Your task to perform on an android device: Open display settings Image 0: 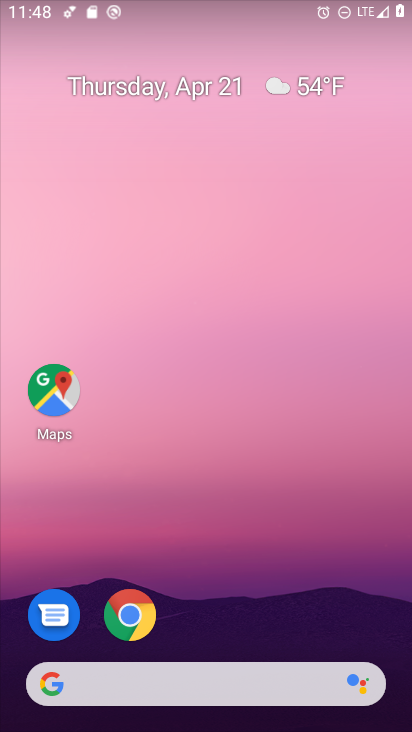
Step 0: drag from (229, 632) to (277, 53)
Your task to perform on an android device: Open display settings Image 1: 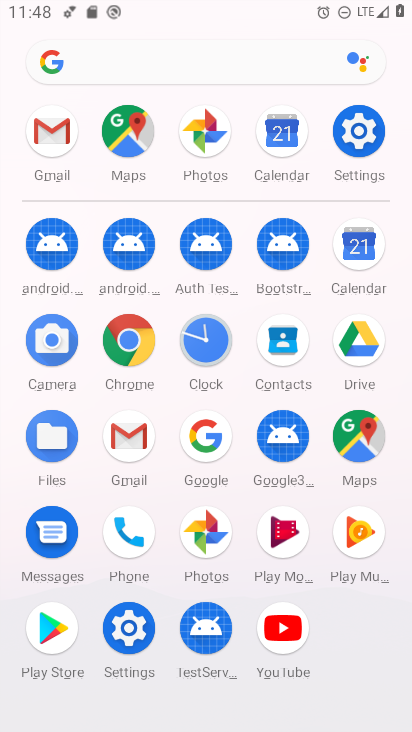
Step 1: click (354, 128)
Your task to perform on an android device: Open display settings Image 2: 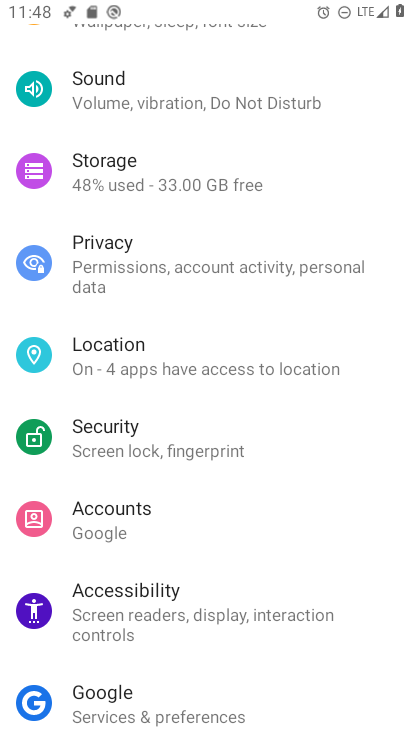
Step 2: drag from (141, 510) to (149, 572)
Your task to perform on an android device: Open display settings Image 3: 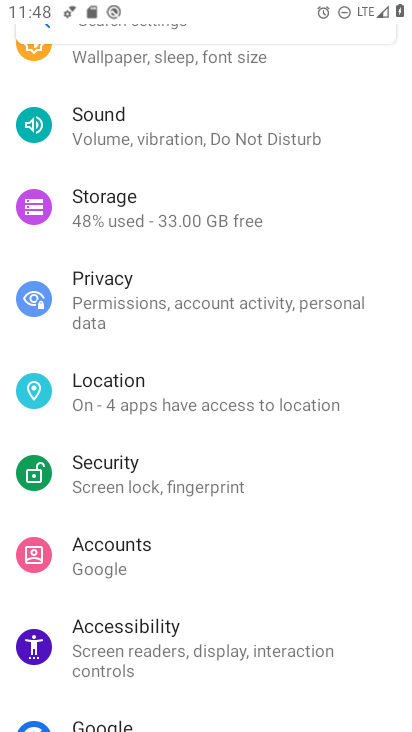
Step 3: drag from (126, 471) to (147, 534)
Your task to perform on an android device: Open display settings Image 4: 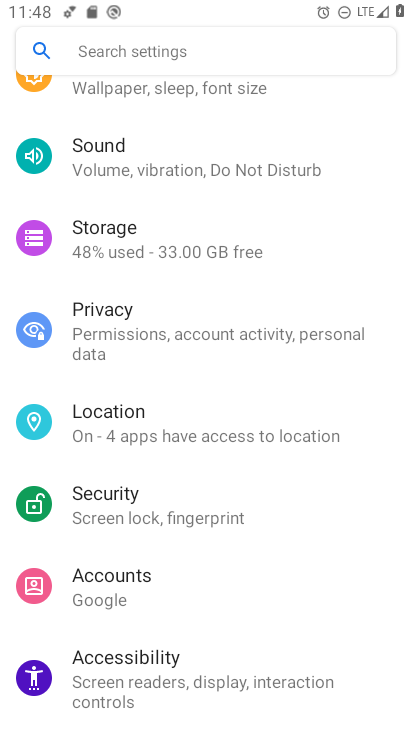
Step 4: drag from (109, 421) to (154, 528)
Your task to perform on an android device: Open display settings Image 5: 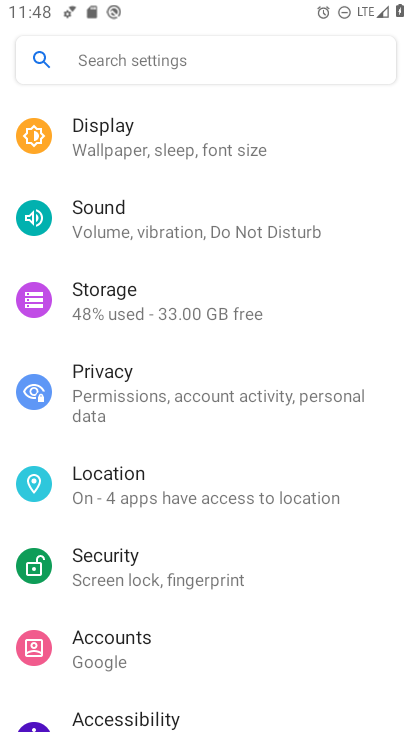
Step 5: drag from (163, 429) to (207, 539)
Your task to perform on an android device: Open display settings Image 6: 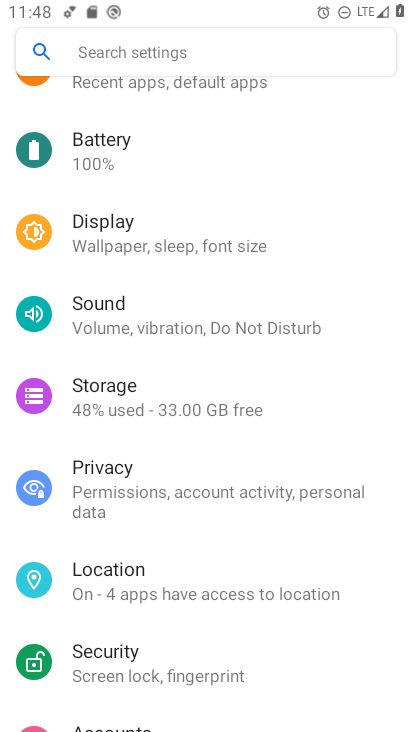
Step 6: drag from (210, 438) to (246, 527)
Your task to perform on an android device: Open display settings Image 7: 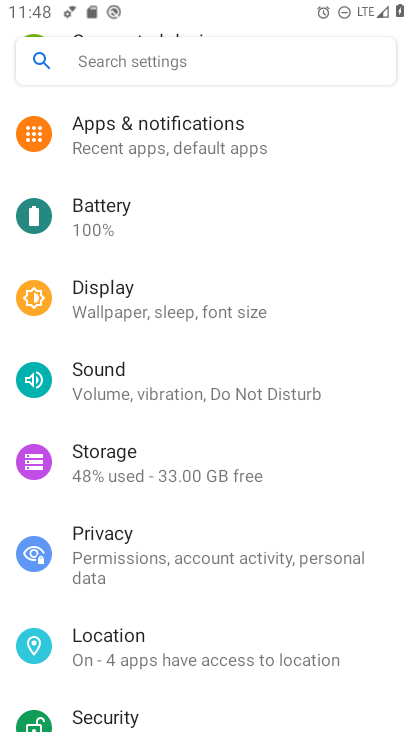
Step 7: click (244, 310)
Your task to perform on an android device: Open display settings Image 8: 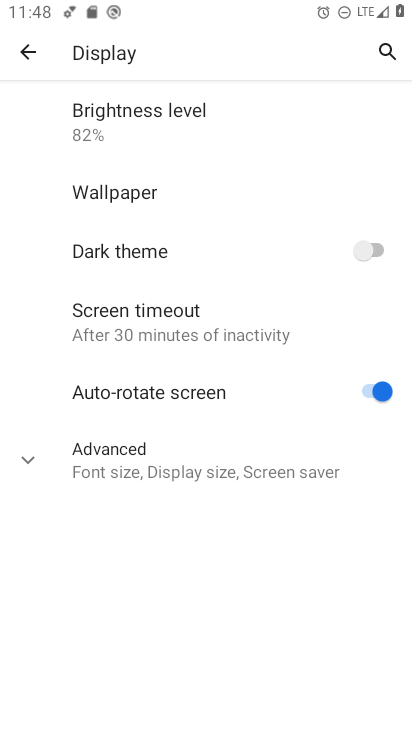
Step 8: task complete